Your task to perform on an android device: star an email in the gmail app Image 0: 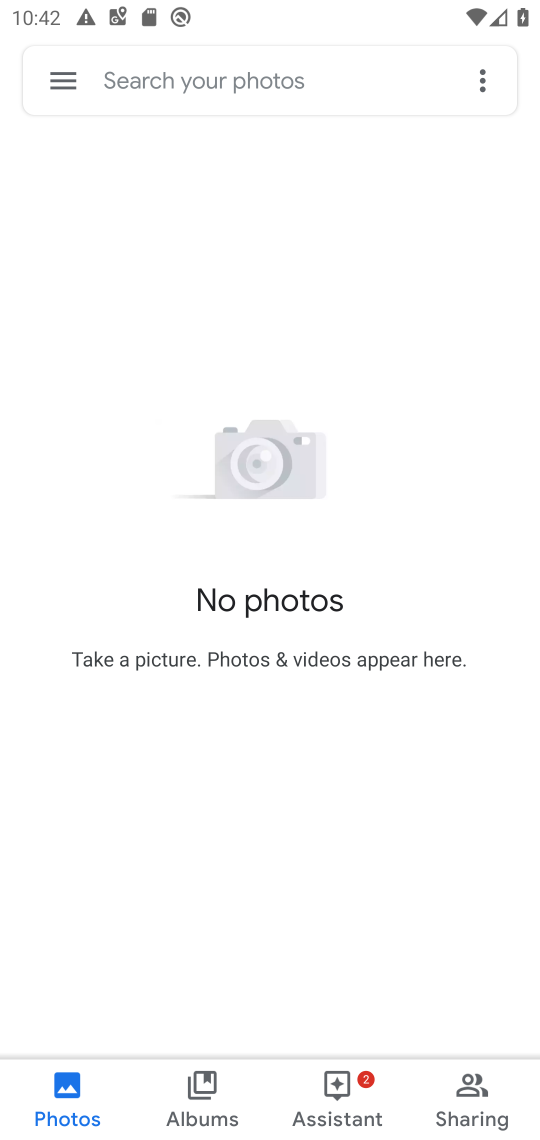
Step 0: press home button
Your task to perform on an android device: star an email in the gmail app Image 1: 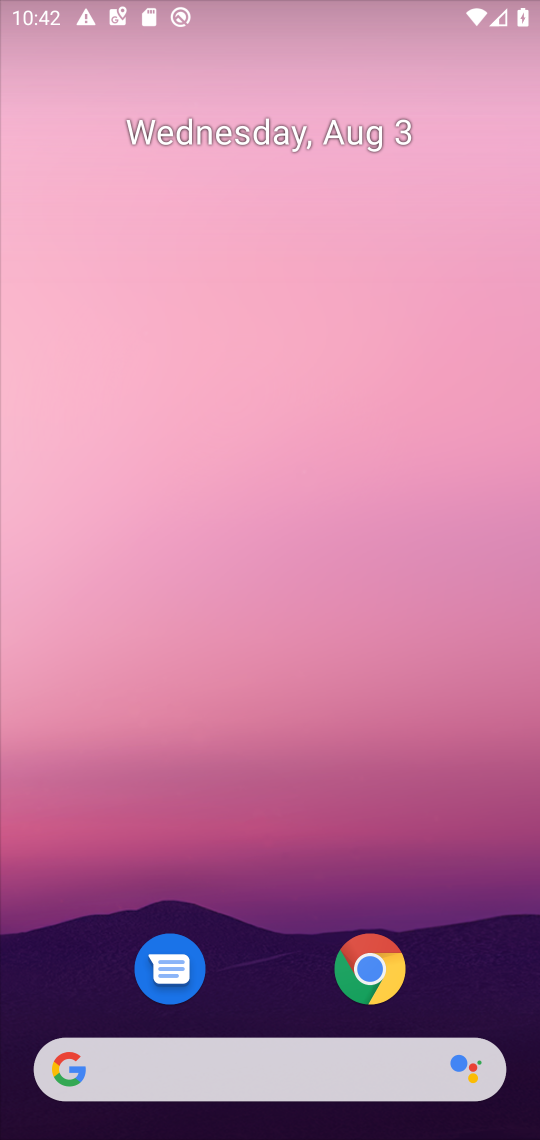
Step 1: drag from (280, 1052) to (202, 147)
Your task to perform on an android device: star an email in the gmail app Image 2: 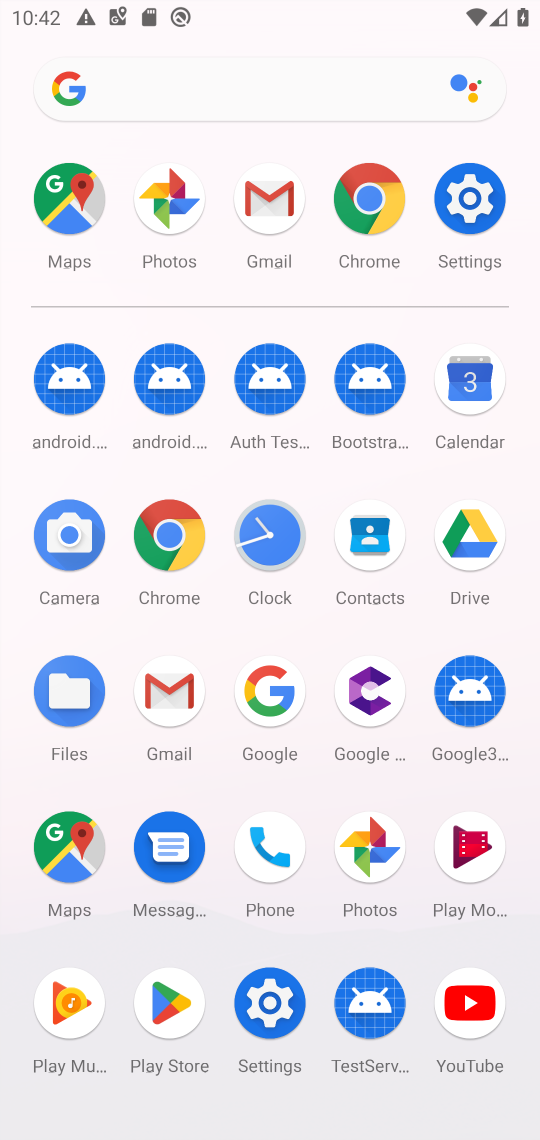
Step 2: click (162, 708)
Your task to perform on an android device: star an email in the gmail app Image 3: 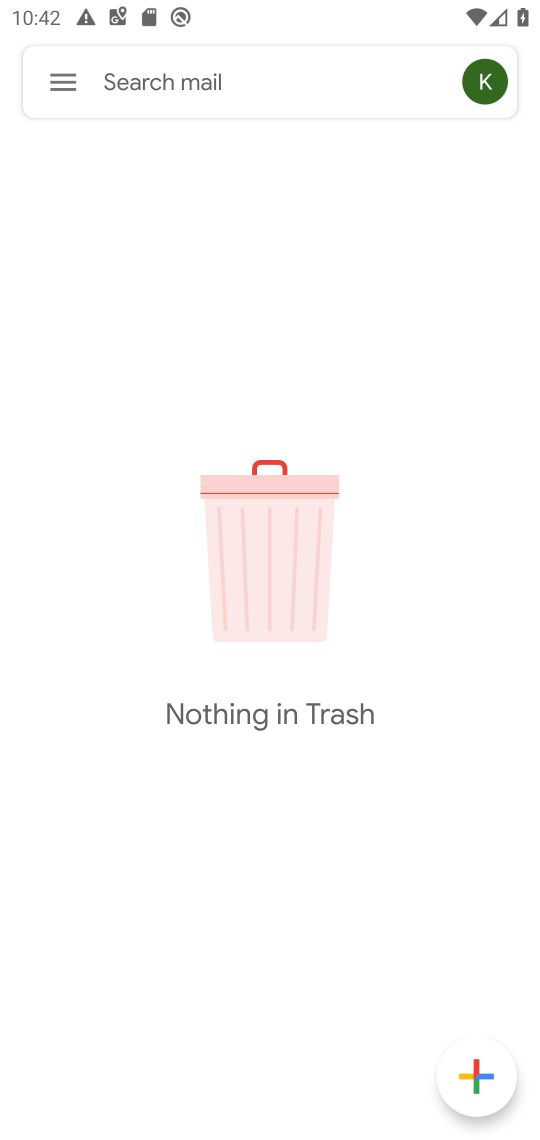
Step 3: click (49, 95)
Your task to perform on an android device: star an email in the gmail app Image 4: 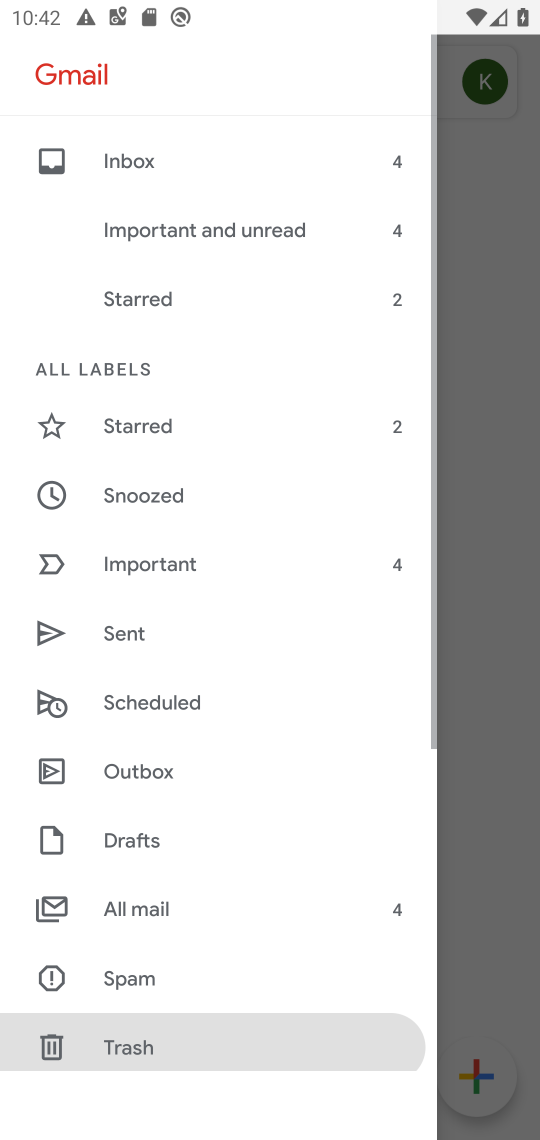
Step 4: click (115, 162)
Your task to perform on an android device: star an email in the gmail app Image 5: 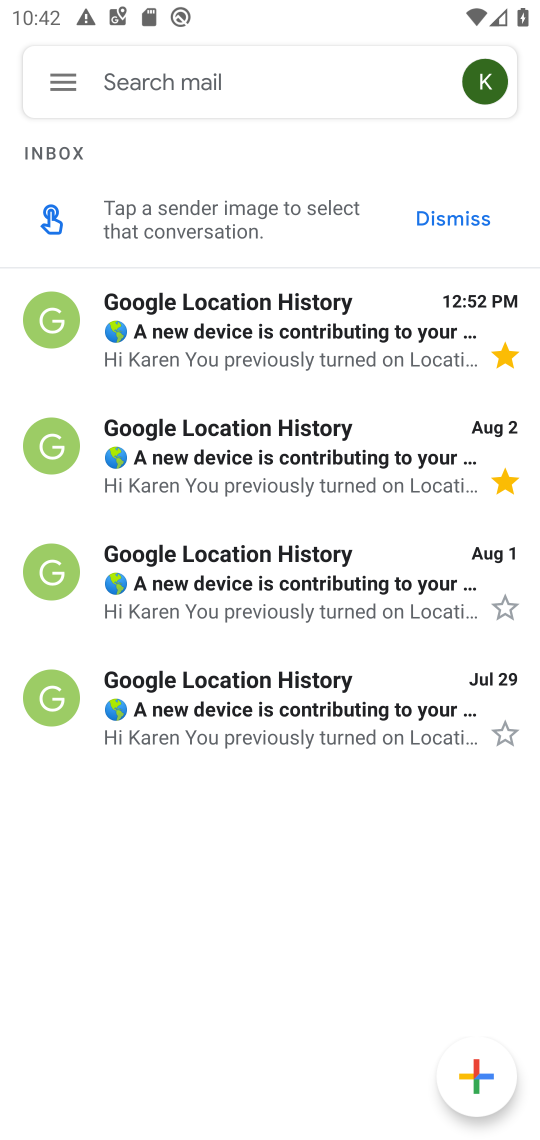
Step 5: click (510, 741)
Your task to perform on an android device: star an email in the gmail app Image 6: 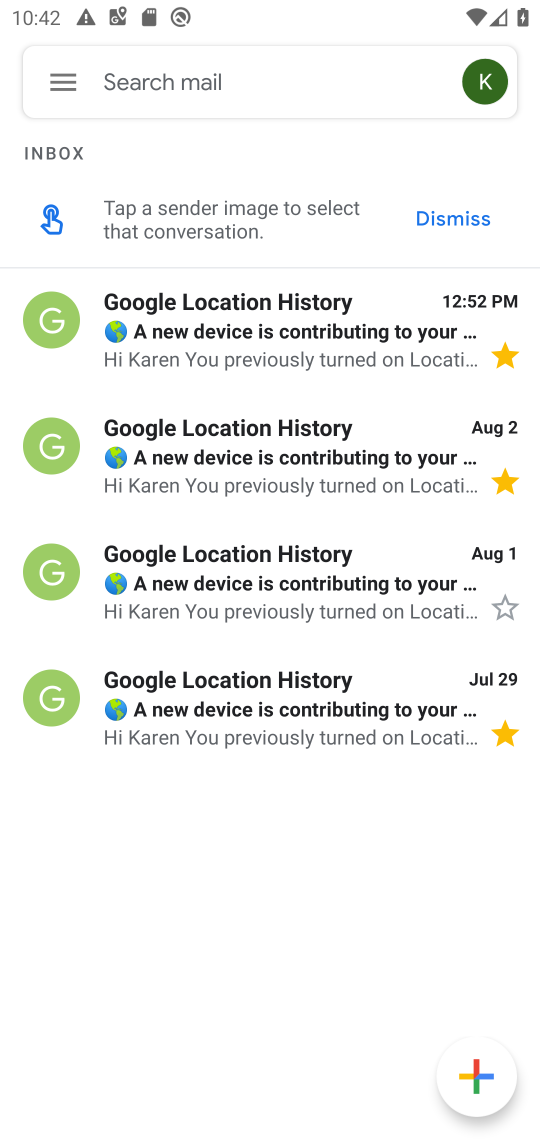
Step 6: task complete